Your task to perform on an android device: Search for seafood restaurants on Google Maps Image 0: 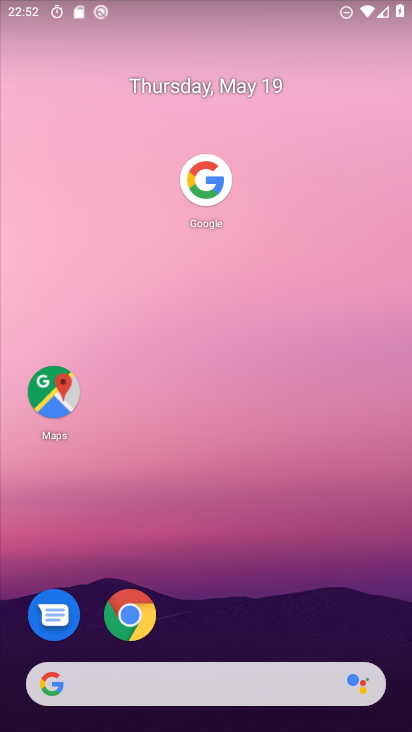
Step 0: click (55, 398)
Your task to perform on an android device: Search for seafood restaurants on Google Maps Image 1: 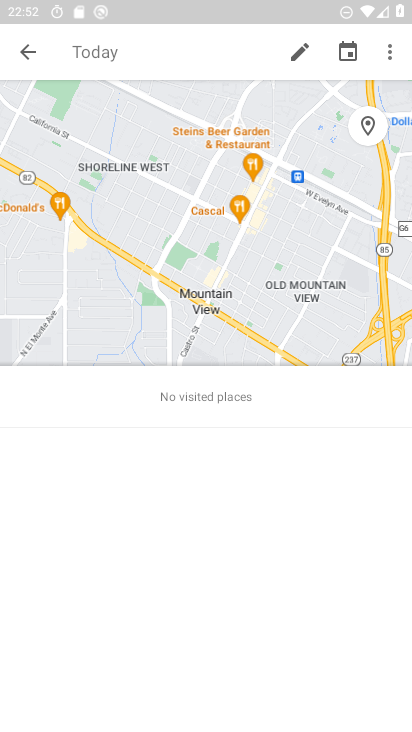
Step 1: press back button
Your task to perform on an android device: Search for seafood restaurants on Google Maps Image 2: 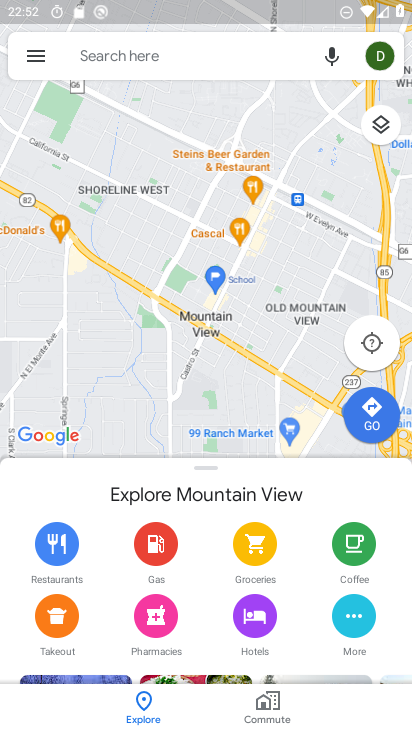
Step 2: click (143, 53)
Your task to perform on an android device: Search for seafood restaurants on Google Maps Image 3: 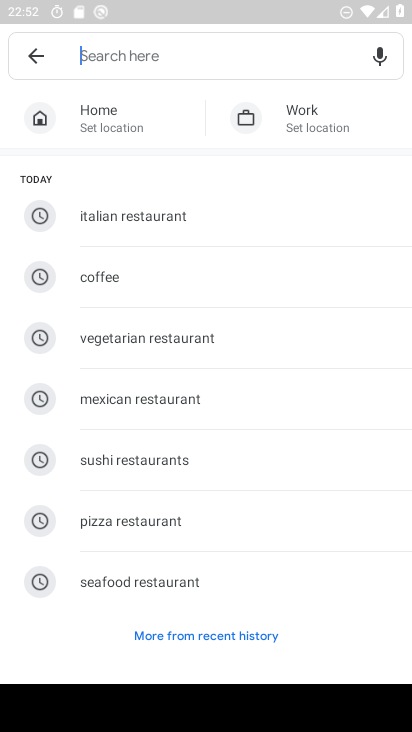
Step 3: click (148, 576)
Your task to perform on an android device: Search for seafood restaurants on Google Maps Image 4: 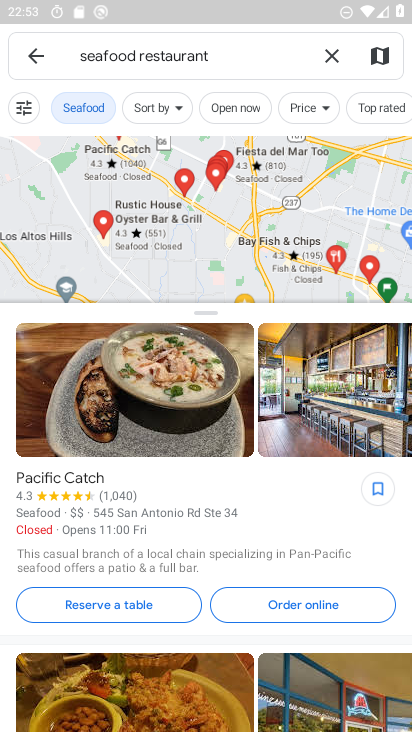
Step 4: task complete